Your task to perform on an android device: change text size in settings app Image 0: 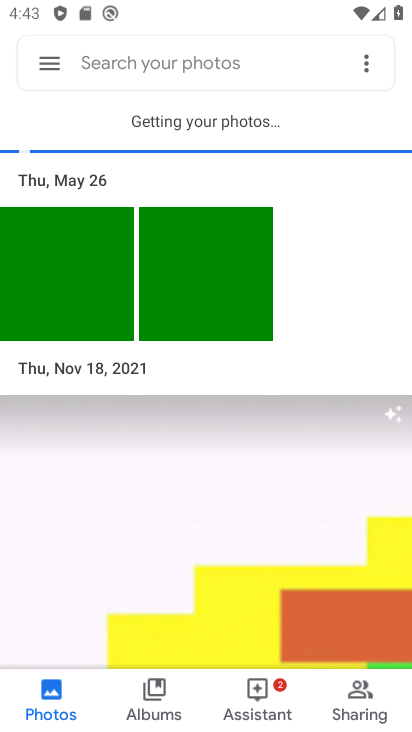
Step 0: press home button
Your task to perform on an android device: change text size in settings app Image 1: 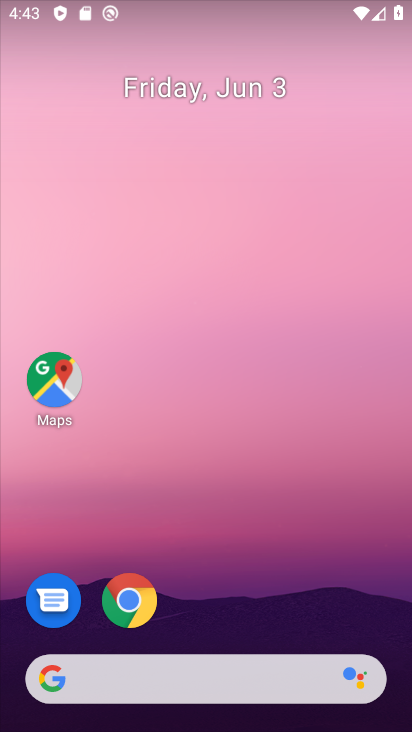
Step 1: drag from (205, 632) to (286, 20)
Your task to perform on an android device: change text size in settings app Image 2: 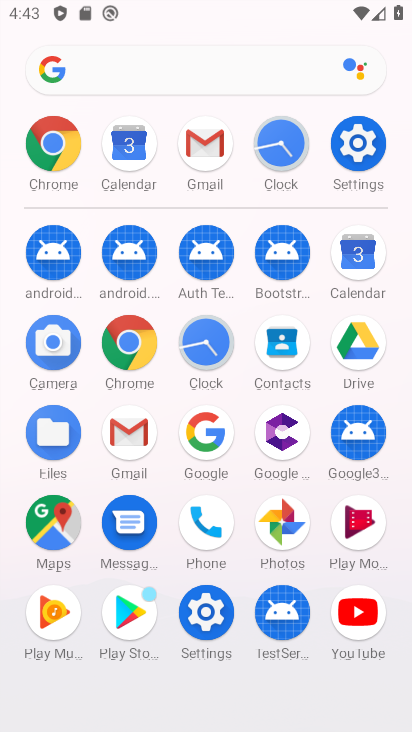
Step 2: click (203, 629)
Your task to perform on an android device: change text size in settings app Image 3: 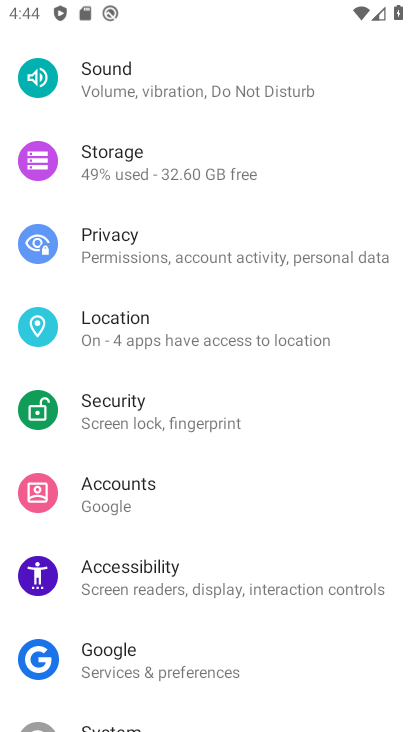
Step 3: drag from (163, 186) to (143, 585)
Your task to perform on an android device: change text size in settings app Image 4: 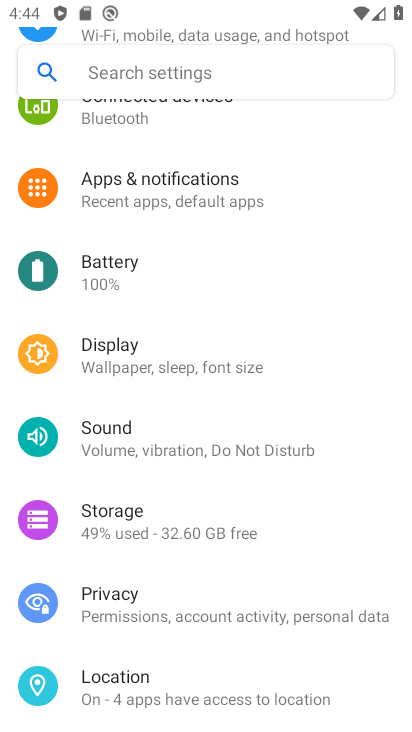
Step 4: click (128, 357)
Your task to perform on an android device: change text size in settings app Image 5: 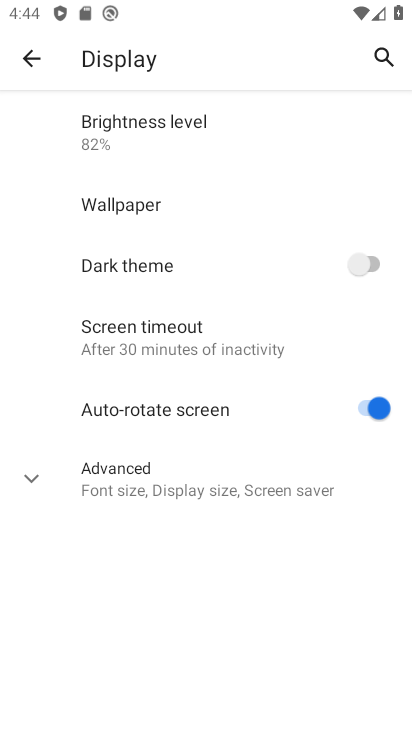
Step 5: click (120, 483)
Your task to perform on an android device: change text size in settings app Image 6: 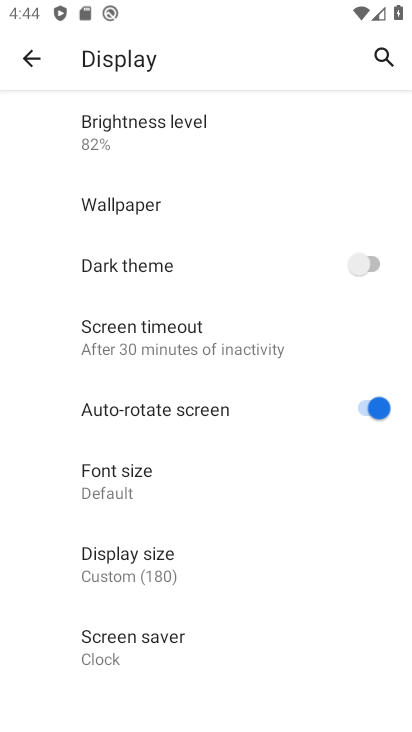
Step 6: click (128, 489)
Your task to perform on an android device: change text size in settings app Image 7: 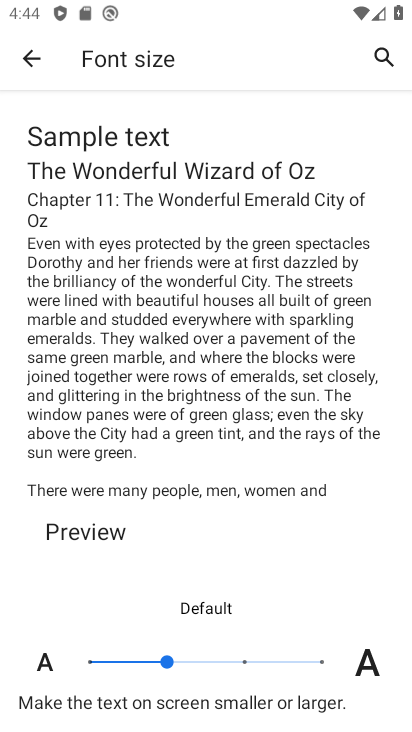
Step 7: click (89, 664)
Your task to perform on an android device: change text size in settings app Image 8: 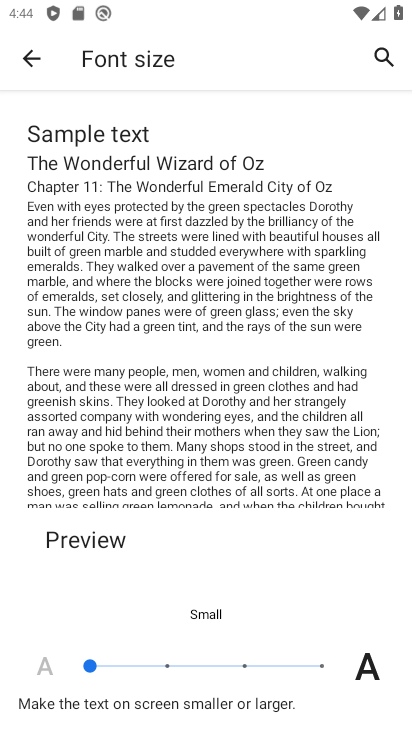
Step 8: task complete